Your task to perform on an android device: Open notification settings Image 0: 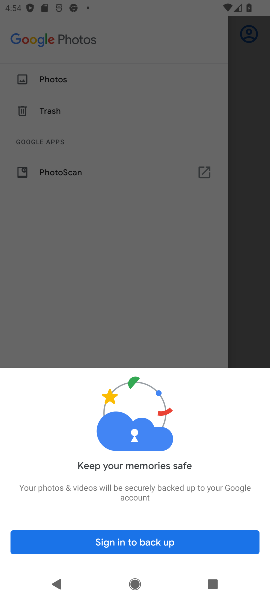
Step 0: press home button
Your task to perform on an android device: Open notification settings Image 1: 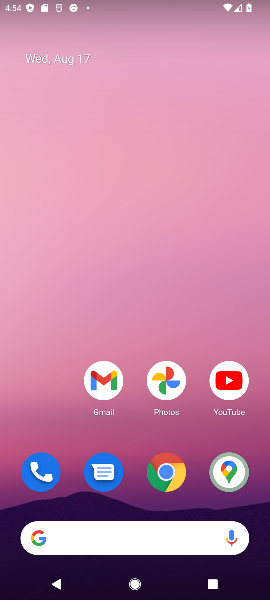
Step 1: drag from (137, 434) to (178, 0)
Your task to perform on an android device: Open notification settings Image 2: 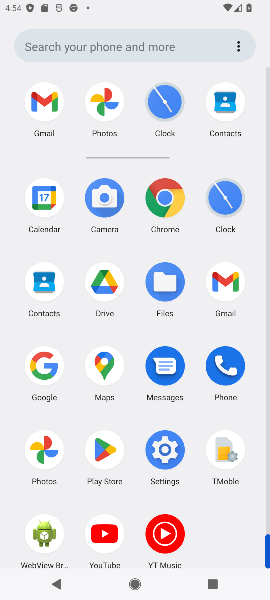
Step 2: click (164, 431)
Your task to perform on an android device: Open notification settings Image 3: 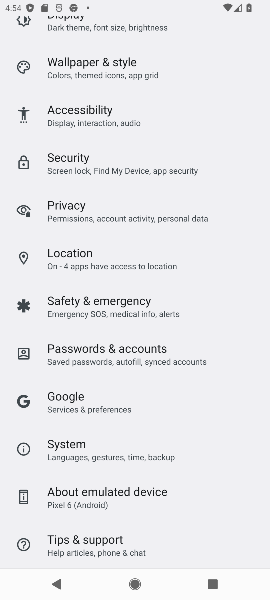
Step 3: drag from (125, 134) to (162, 412)
Your task to perform on an android device: Open notification settings Image 4: 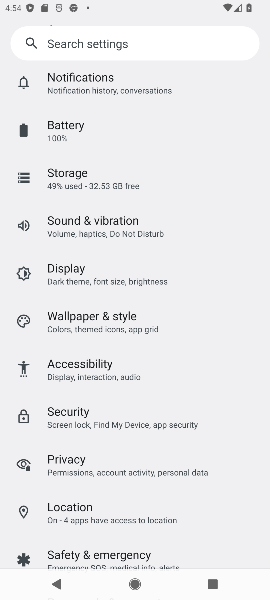
Step 4: drag from (129, 211) to (149, 346)
Your task to perform on an android device: Open notification settings Image 5: 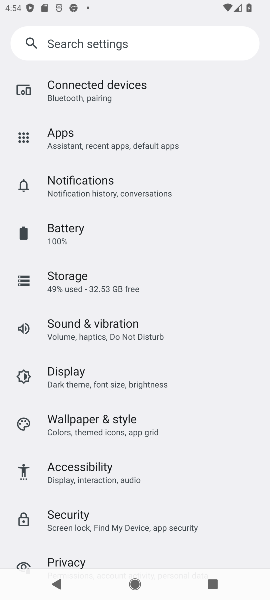
Step 5: click (105, 198)
Your task to perform on an android device: Open notification settings Image 6: 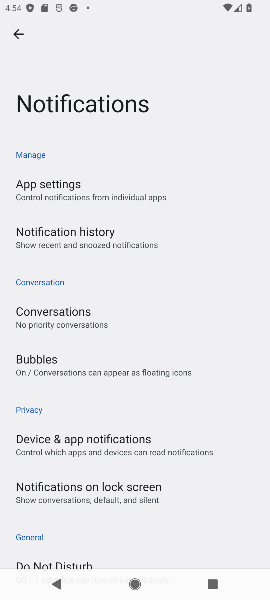
Step 6: task complete